Your task to perform on an android device: Search for Mexican restaurants on Maps Image 0: 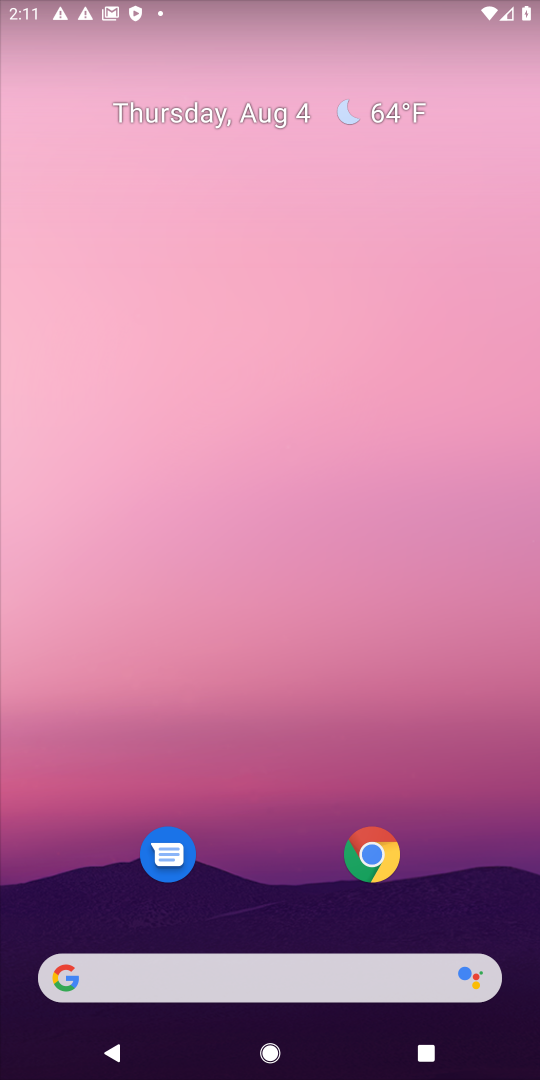
Step 0: drag from (306, 925) to (325, 60)
Your task to perform on an android device: Search for Mexican restaurants on Maps Image 1: 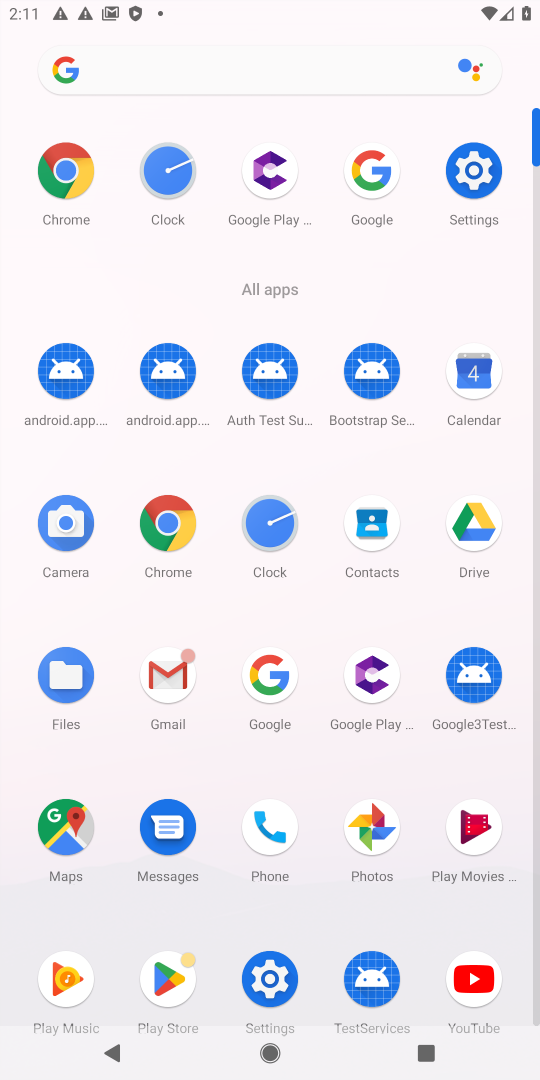
Step 1: click (59, 837)
Your task to perform on an android device: Search for Mexican restaurants on Maps Image 2: 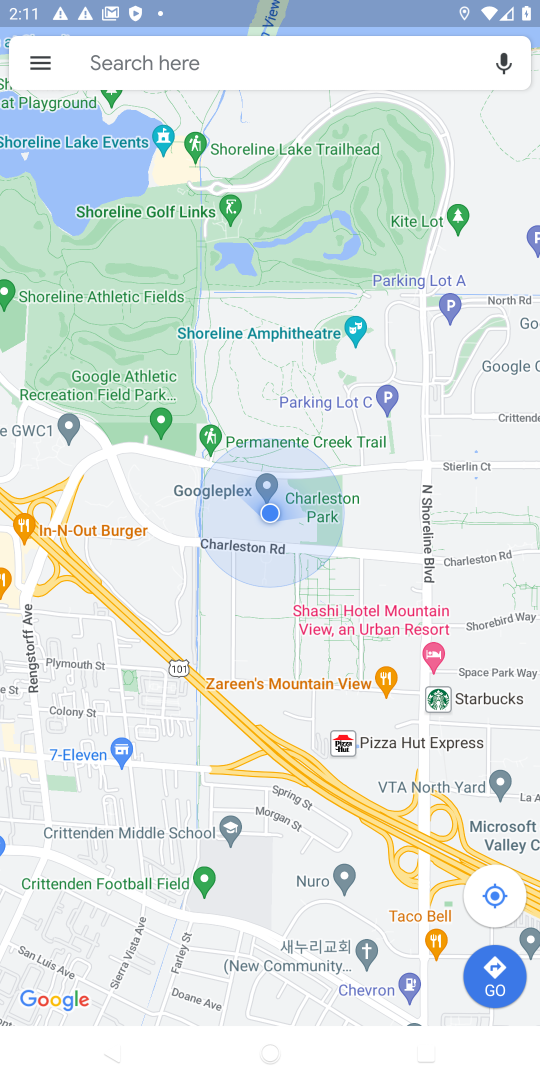
Step 2: click (286, 74)
Your task to perform on an android device: Search for Mexican restaurants on Maps Image 3: 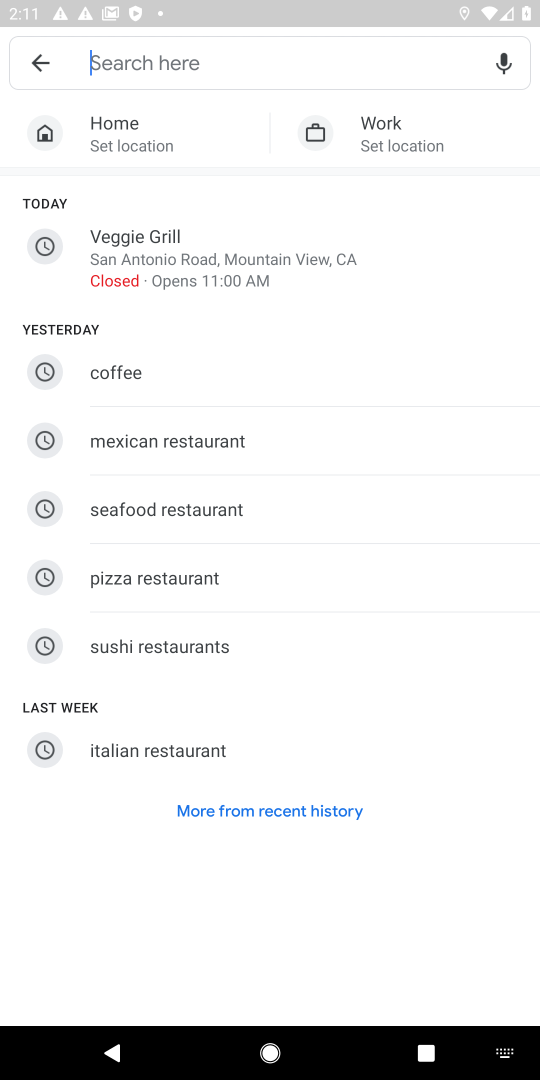
Step 3: click (191, 440)
Your task to perform on an android device: Search for Mexican restaurants on Maps Image 4: 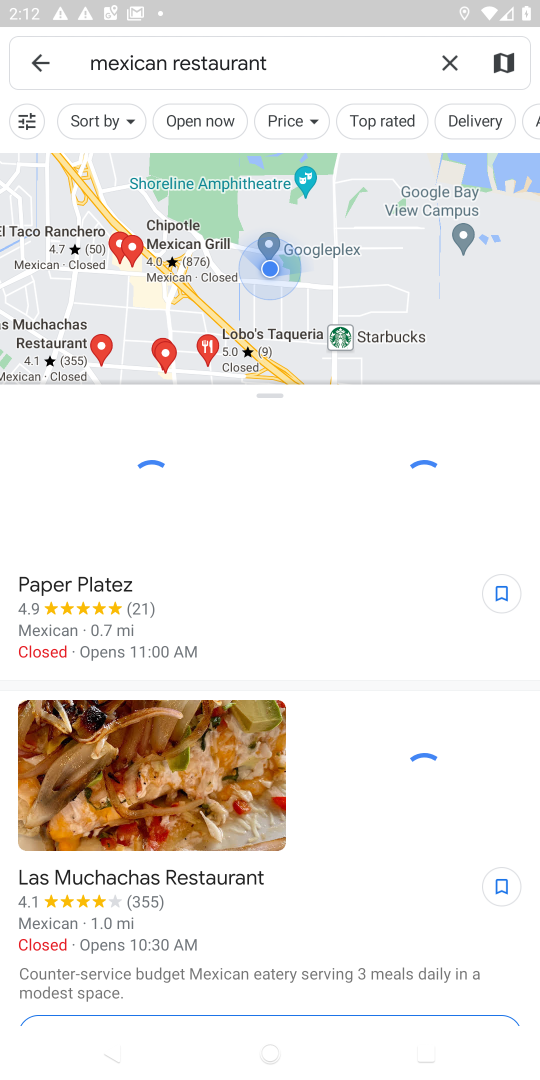
Step 4: task complete